Your task to perform on an android device: Open settings Image 0: 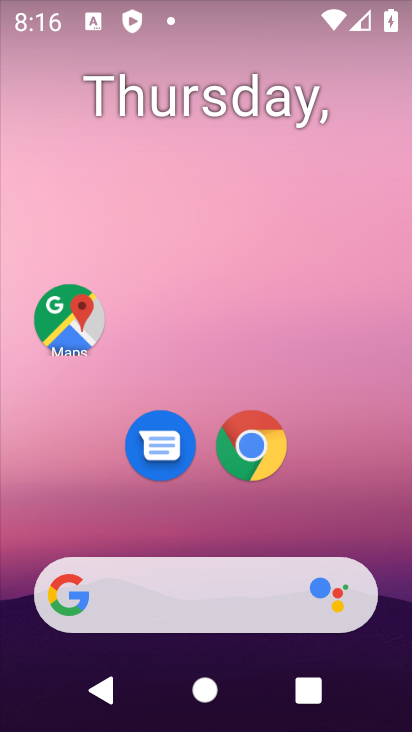
Step 0: drag from (44, 648) to (369, 152)
Your task to perform on an android device: Open settings Image 1: 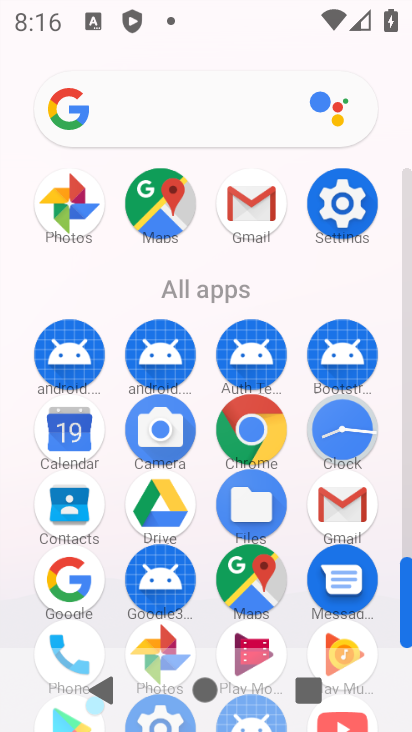
Step 1: click (340, 194)
Your task to perform on an android device: Open settings Image 2: 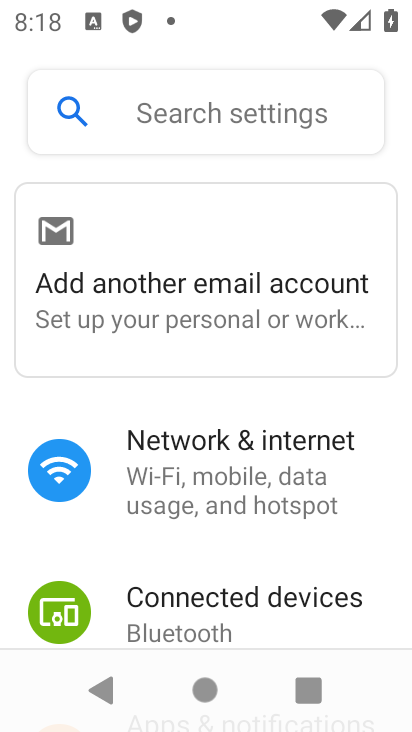
Step 2: task complete